Your task to perform on an android device: check android version Image 0: 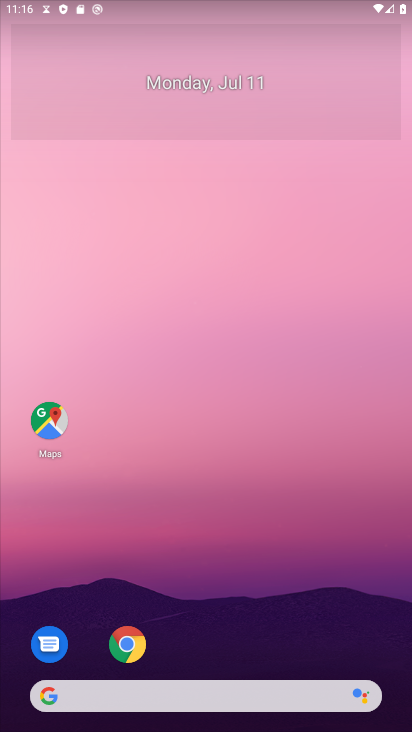
Step 0: drag from (370, 556) to (304, 104)
Your task to perform on an android device: check android version Image 1: 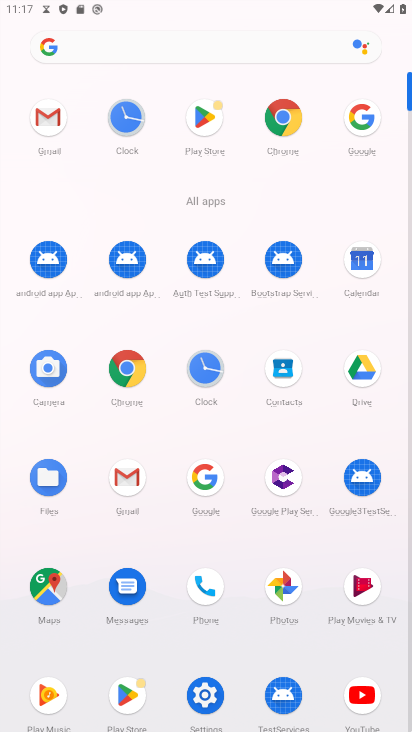
Step 1: click (214, 690)
Your task to perform on an android device: check android version Image 2: 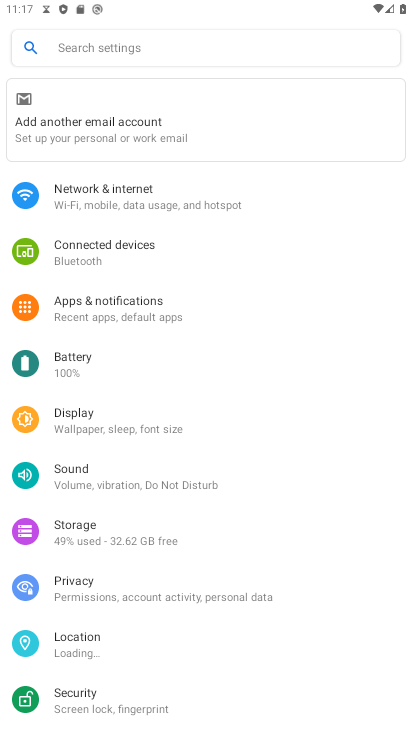
Step 2: drag from (310, 670) to (274, 86)
Your task to perform on an android device: check android version Image 3: 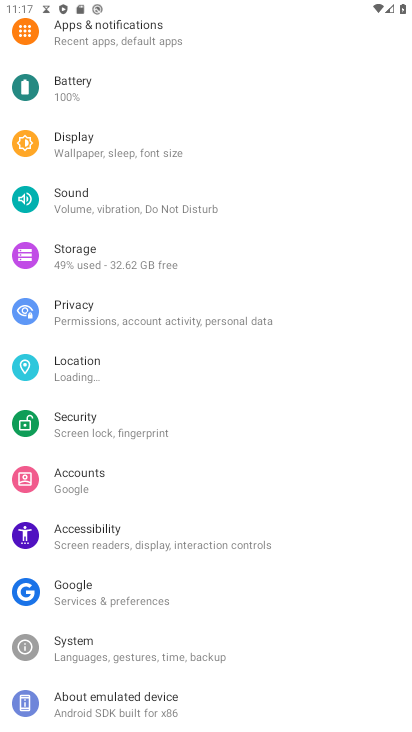
Step 3: click (67, 691)
Your task to perform on an android device: check android version Image 4: 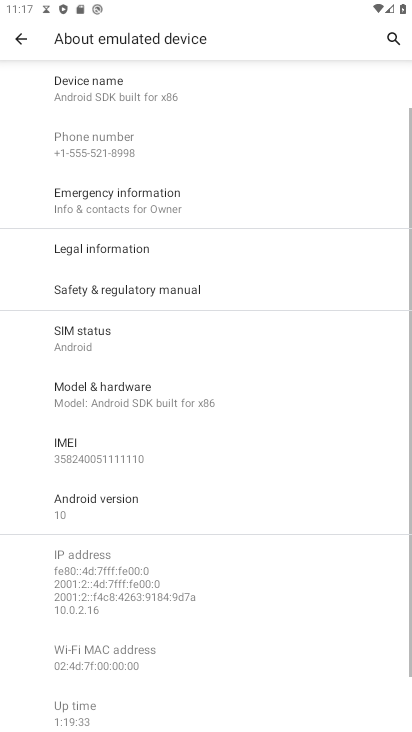
Step 4: drag from (238, 644) to (241, 300)
Your task to perform on an android device: check android version Image 5: 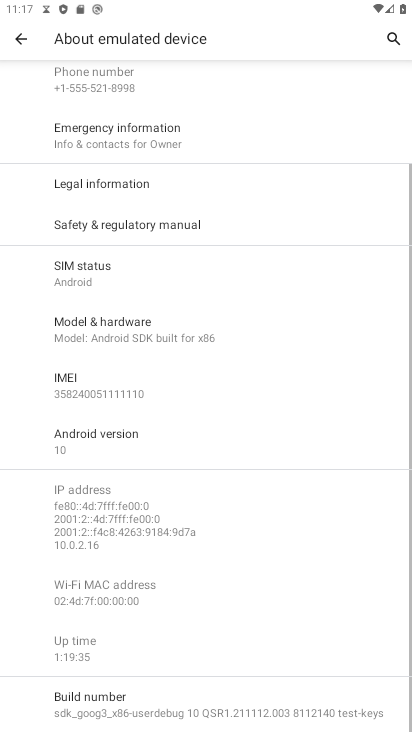
Step 5: click (112, 438)
Your task to perform on an android device: check android version Image 6: 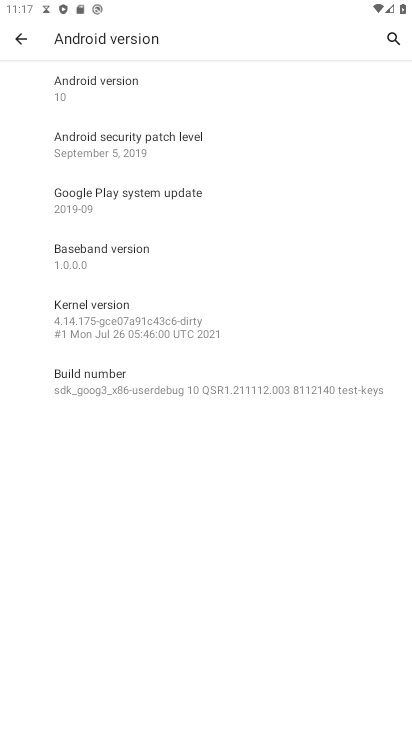
Step 6: click (47, 86)
Your task to perform on an android device: check android version Image 7: 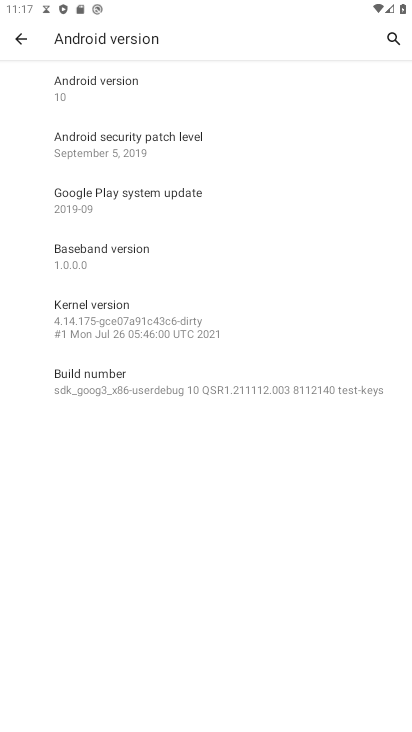
Step 7: task complete